Your task to perform on an android device: open app "Indeed Job Search" (install if not already installed) Image 0: 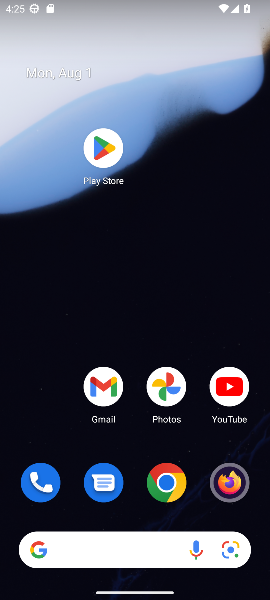
Step 0: press home button
Your task to perform on an android device: open app "Indeed Job Search" (install if not already installed) Image 1: 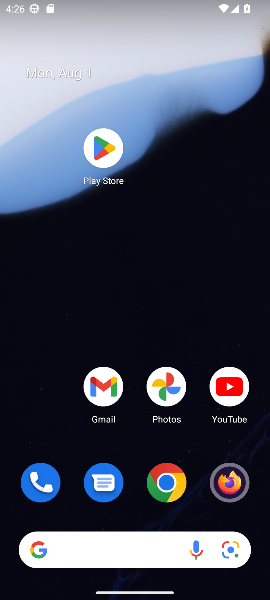
Step 1: click (100, 141)
Your task to perform on an android device: open app "Indeed Job Search" (install if not already installed) Image 2: 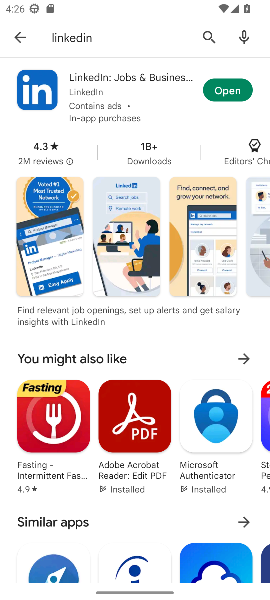
Step 2: click (210, 33)
Your task to perform on an android device: open app "Indeed Job Search" (install if not already installed) Image 3: 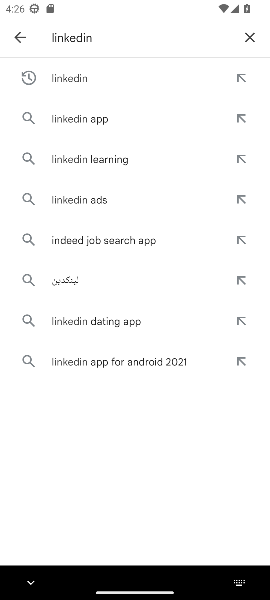
Step 3: click (249, 31)
Your task to perform on an android device: open app "Indeed Job Search" (install if not already installed) Image 4: 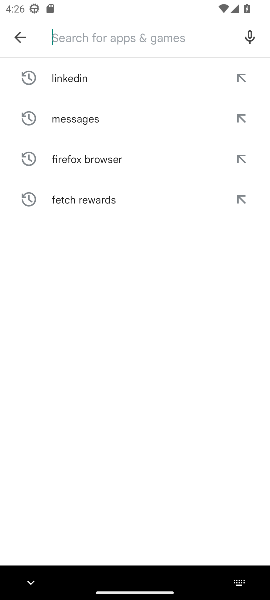
Step 4: type "Indeed Job Search"
Your task to perform on an android device: open app "Indeed Job Search" (install if not already installed) Image 5: 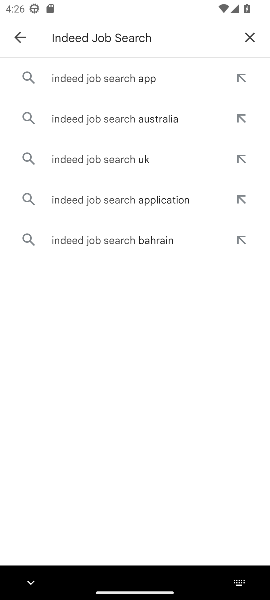
Step 5: click (121, 77)
Your task to perform on an android device: open app "Indeed Job Search" (install if not already installed) Image 6: 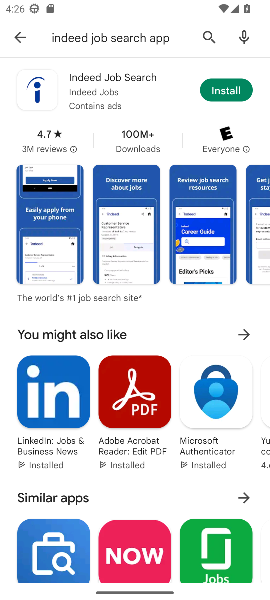
Step 6: click (233, 90)
Your task to perform on an android device: open app "Indeed Job Search" (install if not already installed) Image 7: 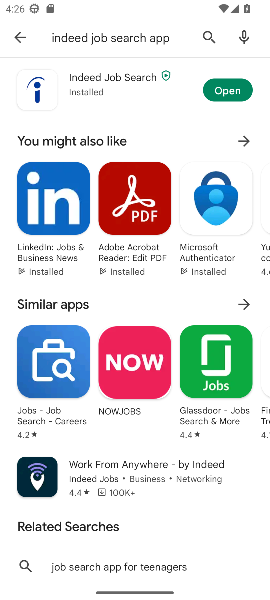
Step 7: click (218, 90)
Your task to perform on an android device: open app "Indeed Job Search" (install if not already installed) Image 8: 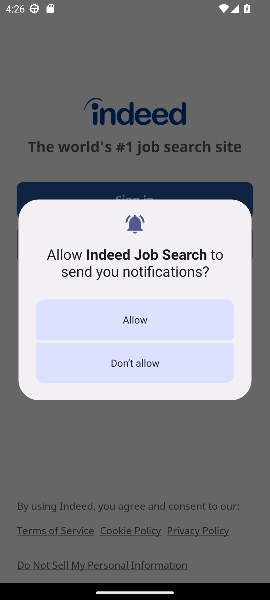
Step 8: click (159, 366)
Your task to perform on an android device: open app "Indeed Job Search" (install if not already installed) Image 9: 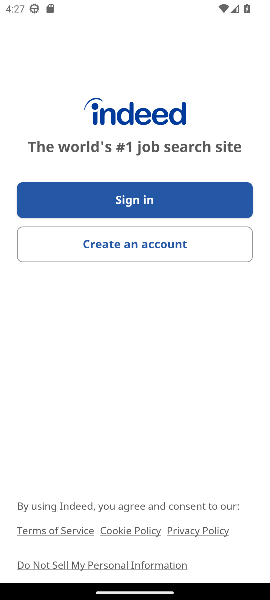
Step 9: task complete